Your task to perform on an android device: see tabs open on other devices in the chrome app Image 0: 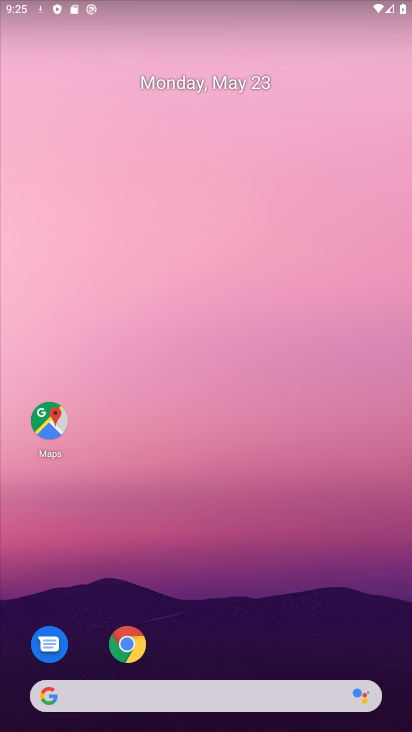
Step 0: drag from (252, 715) to (250, 91)
Your task to perform on an android device: see tabs open on other devices in the chrome app Image 1: 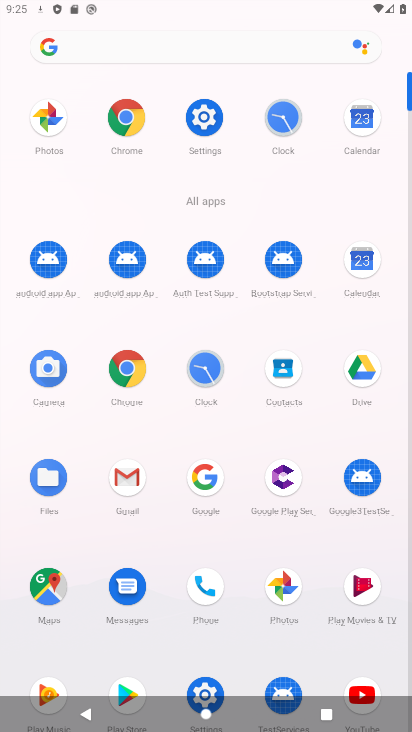
Step 1: click (130, 131)
Your task to perform on an android device: see tabs open on other devices in the chrome app Image 2: 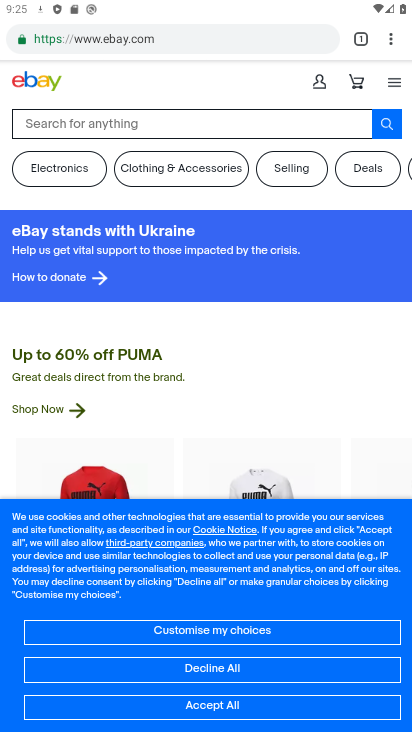
Step 2: click (397, 35)
Your task to perform on an android device: see tabs open on other devices in the chrome app Image 3: 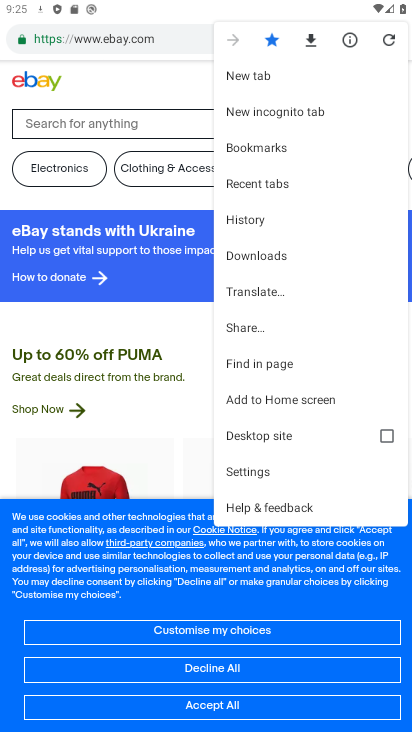
Step 3: click (261, 467)
Your task to perform on an android device: see tabs open on other devices in the chrome app Image 4: 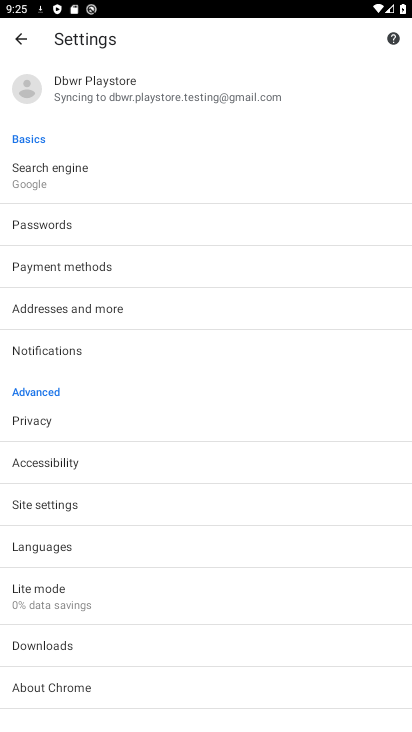
Step 4: click (11, 32)
Your task to perform on an android device: see tabs open on other devices in the chrome app Image 5: 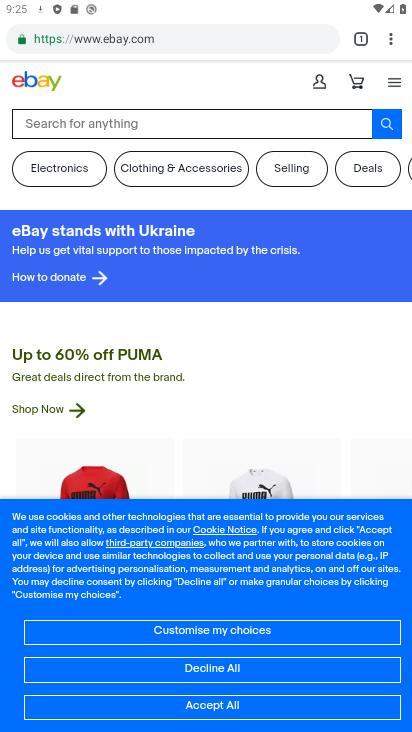
Step 5: click (364, 44)
Your task to perform on an android device: see tabs open on other devices in the chrome app Image 6: 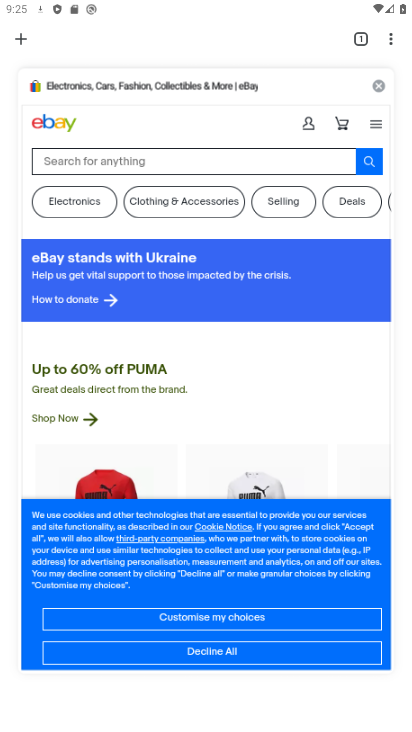
Step 6: click (20, 44)
Your task to perform on an android device: see tabs open on other devices in the chrome app Image 7: 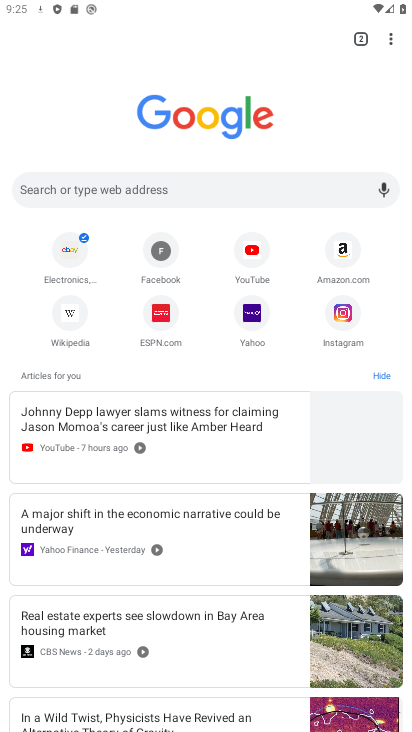
Step 7: task complete